Your task to perform on an android device: find which apps use the phone's location Image 0: 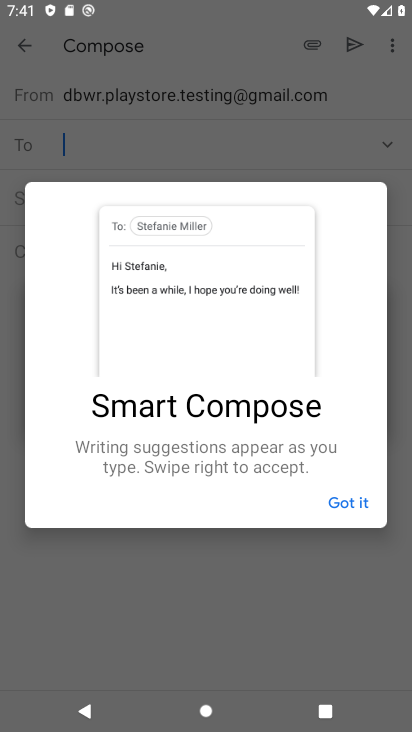
Step 0: press home button
Your task to perform on an android device: find which apps use the phone's location Image 1: 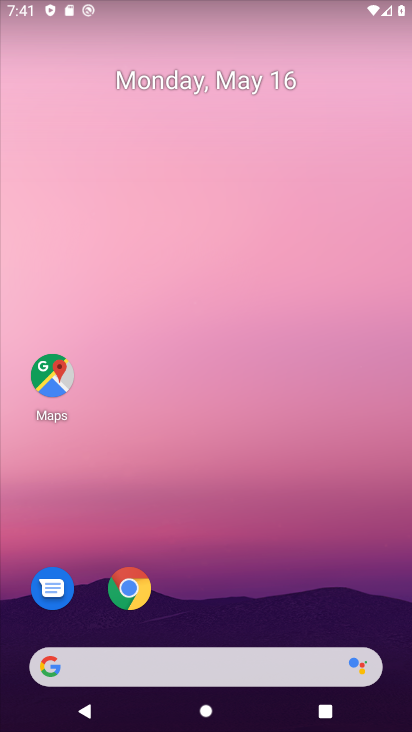
Step 1: drag from (344, 586) to (350, 104)
Your task to perform on an android device: find which apps use the phone's location Image 2: 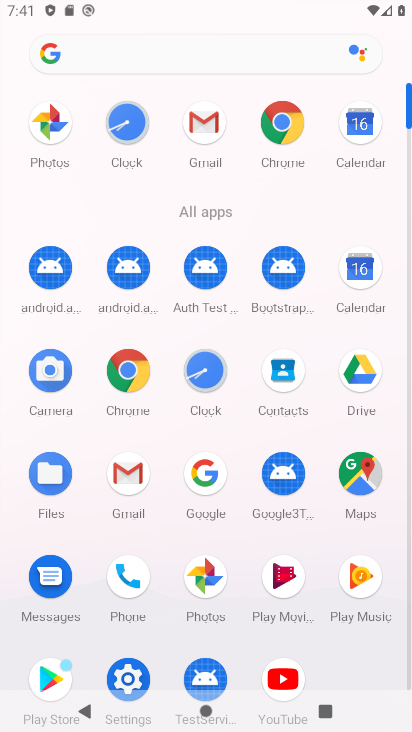
Step 2: drag from (155, 545) to (173, 410)
Your task to perform on an android device: find which apps use the phone's location Image 3: 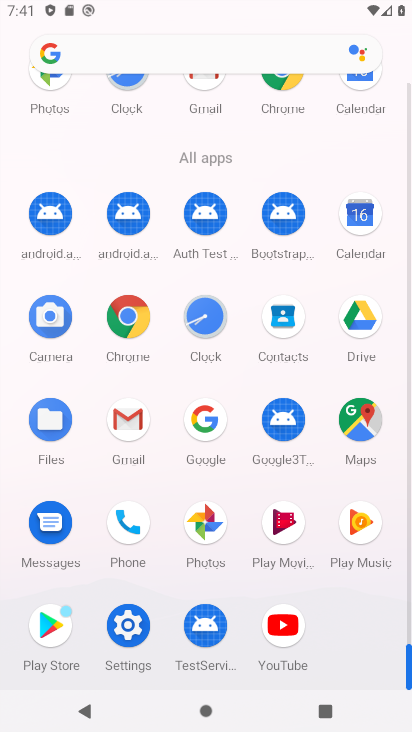
Step 3: click (125, 641)
Your task to perform on an android device: find which apps use the phone's location Image 4: 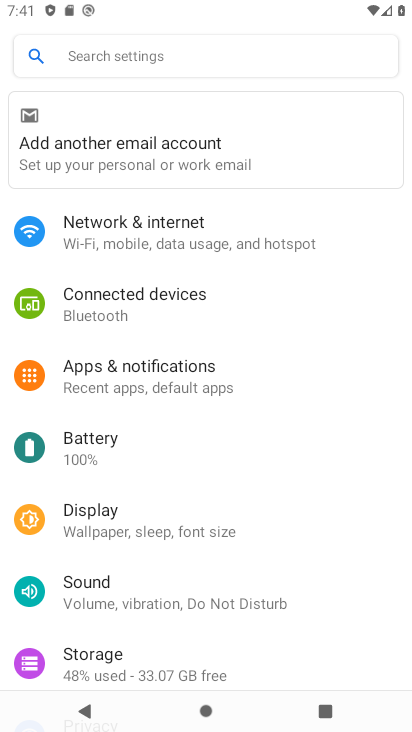
Step 4: drag from (347, 598) to (360, 460)
Your task to perform on an android device: find which apps use the phone's location Image 5: 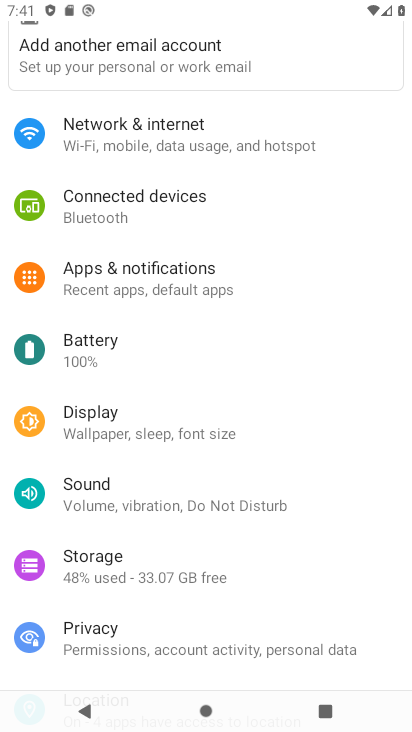
Step 5: drag from (372, 636) to (376, 484)
Your task to perform on an android device: find which apps use the phone's location Image 6: 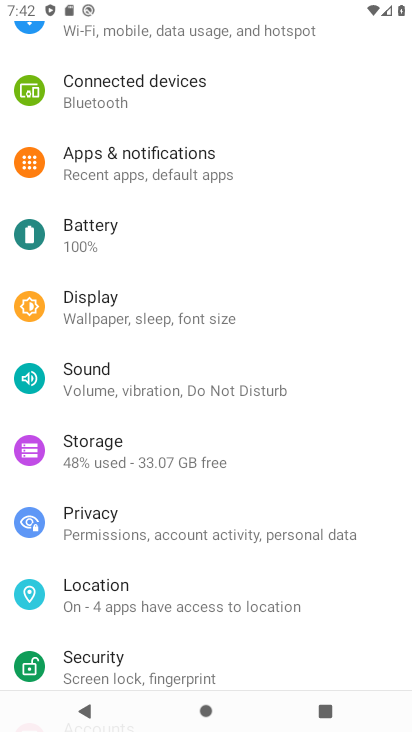
Step 6: drag from (363, 643) to (352, 484)
Your task to perform on an android device: find which apps use the phone's location Image 7: 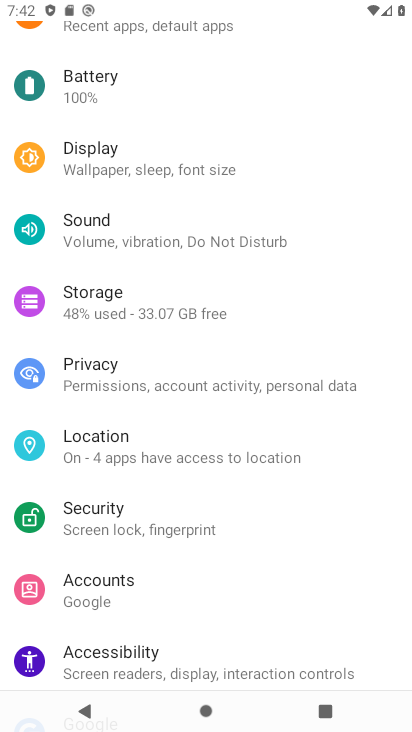
Step 7: drag from (351, 639) to (358, 483)
Your task to perform on an android device: find which apps use the phone's location Image 8: 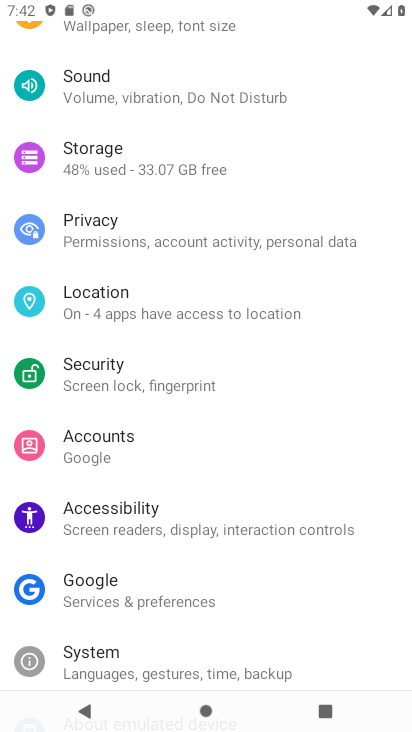
Step 8: drag from (362, 645) to (366, 465)
Your task to perform on an android device: find which apps use the phone's location Image 9: 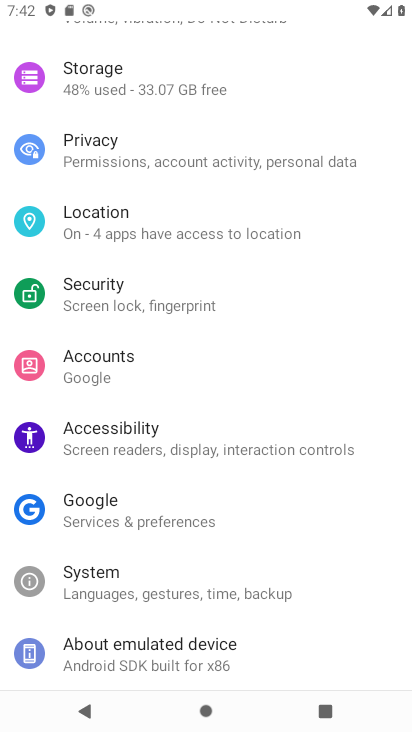
Step 9: drag from (328, 619) to (333, 506)
Your task to perform on an android device: find which apps use the phone's location Image 10: 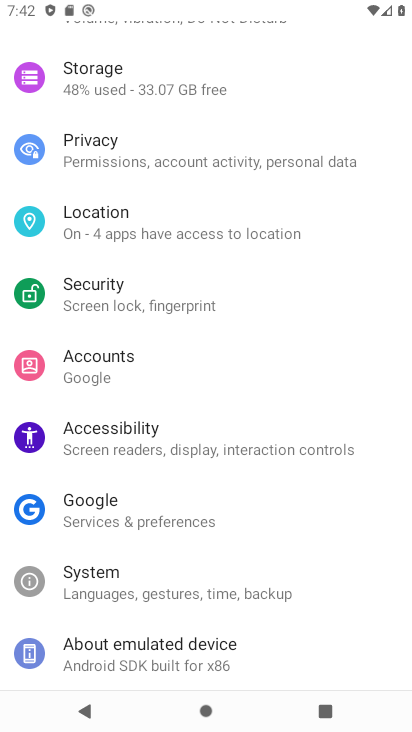
Step 10: click (163, 227)
Your task to perform on an android device: find which apps use the phone's location Image 11: 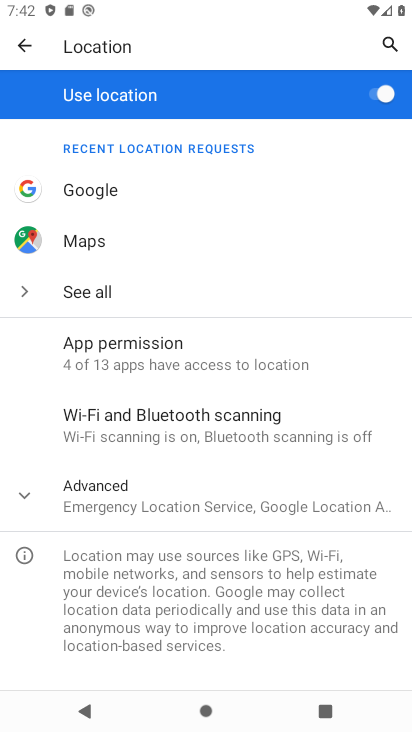
Step 11: drag from (350, 469) to (355, 275)
Your task to perform on an android device: find which apps use the phone's location Image 12: 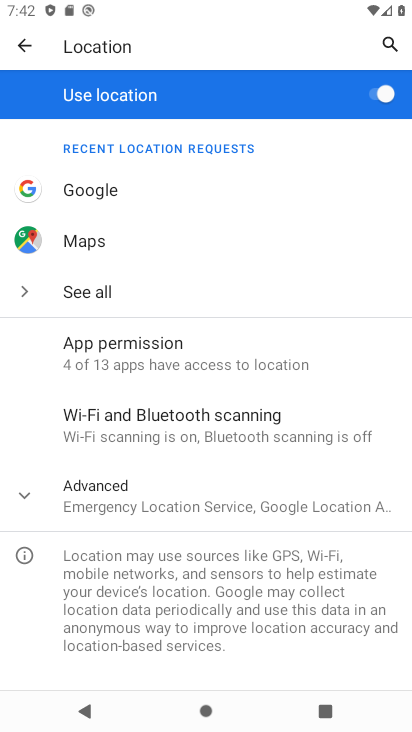
Step 12: click (162, 352)
Your task to perform on an android device: find which apps use the phone's location Image 13: 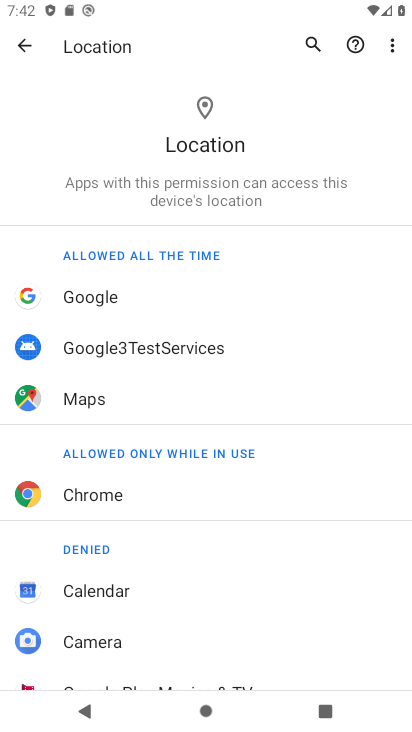
Step 13: drag from (300, 601) to (313, 472)
Your task to perform on an android device: find which apps use the phone's location Image 14: 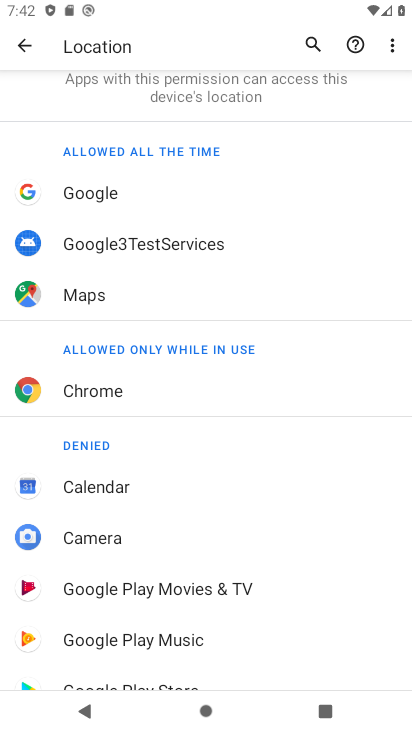
Step 14: drag from (307, 625) to (314, 483)
Your task to perform on an android device: find which apps use the phone's location Image 15: 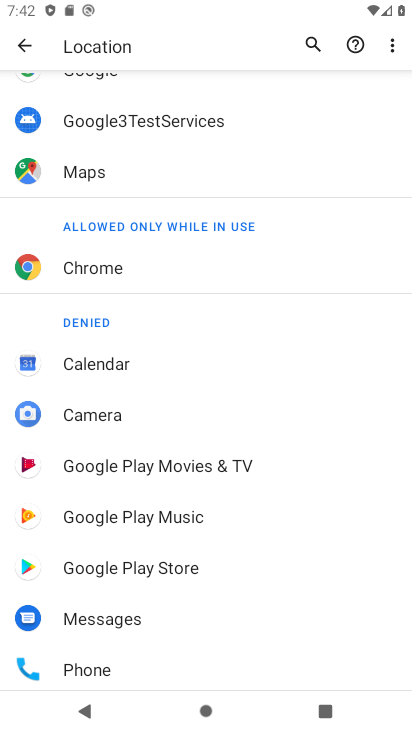
Step 15: drag from (289, 560) to (292, 426)
Your task to perform on an android device: find which apps use the phone's location Image 16: 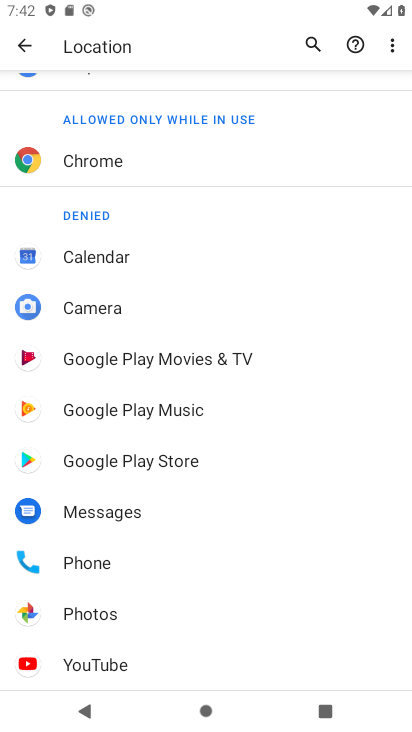
Step 16: click (83, 621)
Your task to perform on an android device: find which apps use the phone's location Image 17: 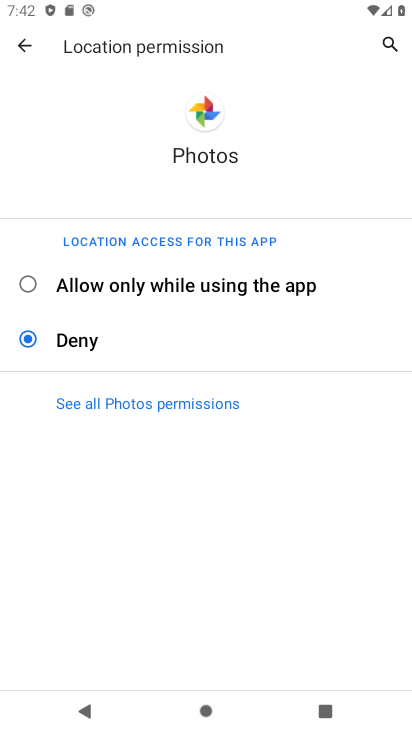
Step 17: click (20, 285)
Your task to perform on an android device: find which apps use the phone's location Image 18: 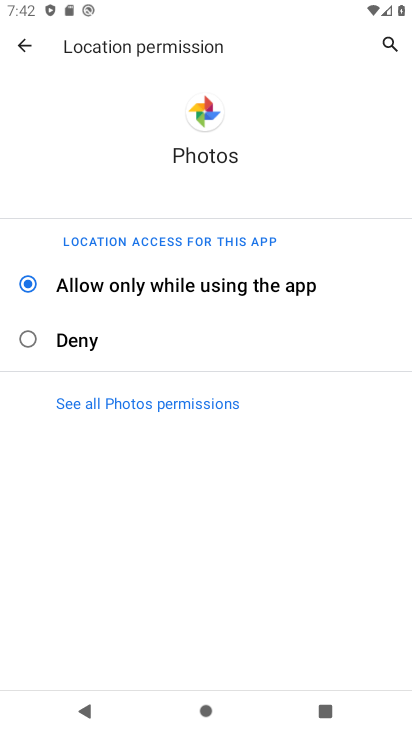
Step 18: task complete